Your task to perform on an android device: Open Yahoo.com Image 0: 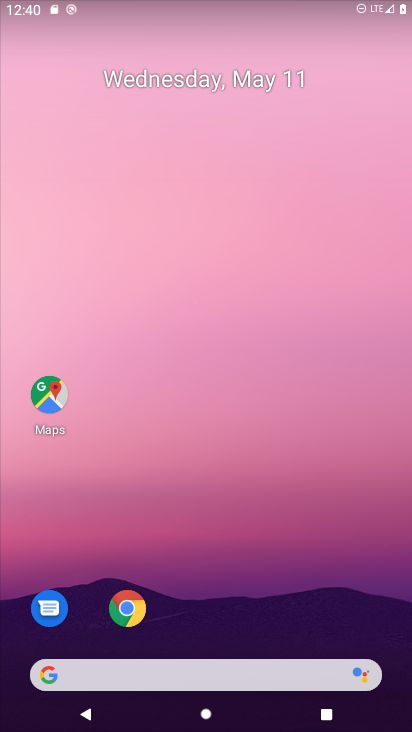
Step 0: click (281, 675)
Your task to perform on an android device: Open Yahoo.com Image 1: 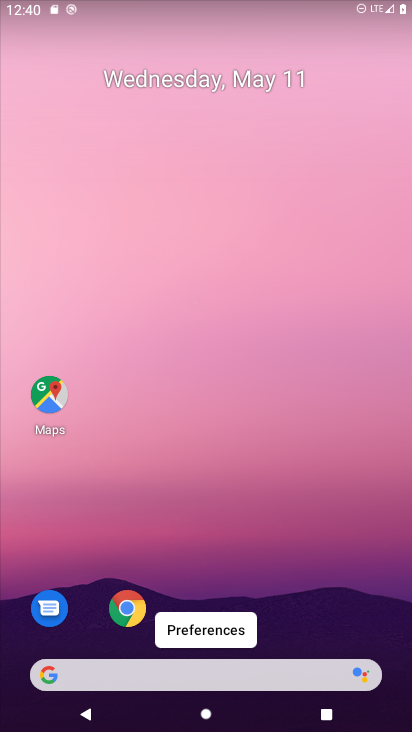
Step 1: click (281, 676)
Your task to perform on an android device: Open Yahoo.com Image 2: 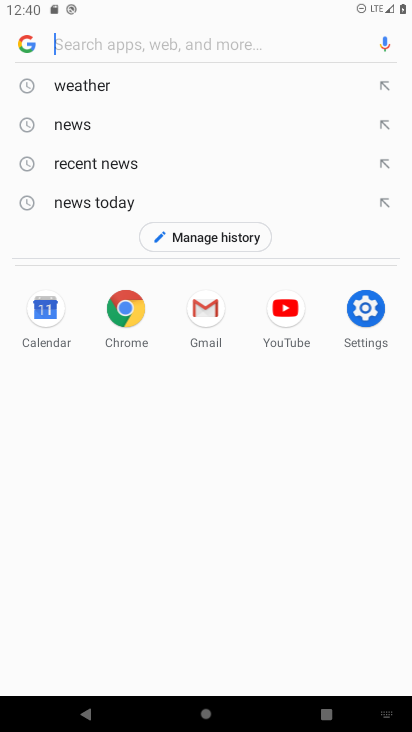
Step 2: type "yahoo.com"
Your task to perform on an android device: Open Yahoo.com Image 3: 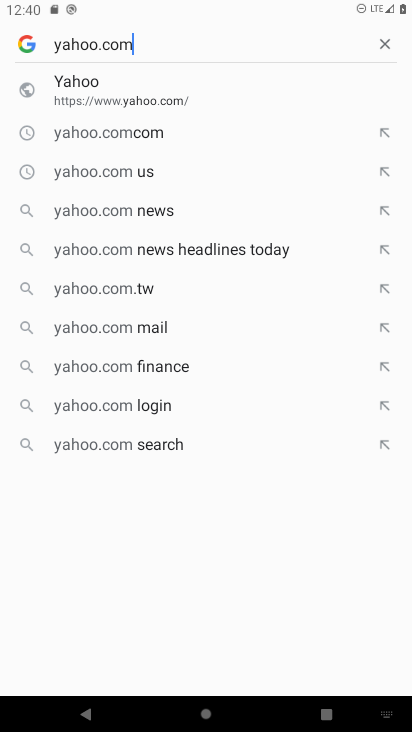
Step 3: click (84, 82)
Your task to perform on an android device: Open Yahoo.com Image 4: 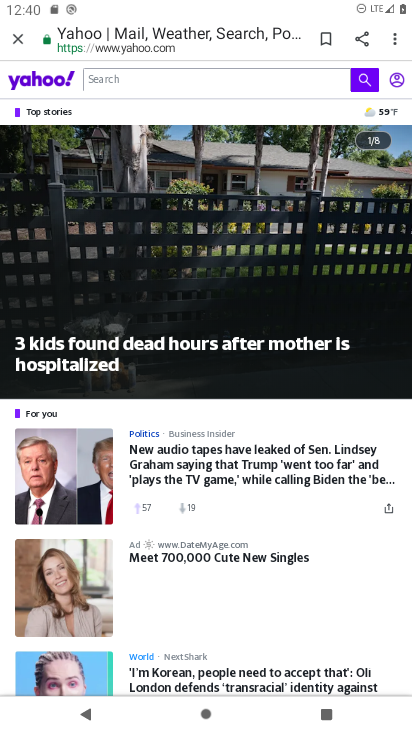
Step 4: task complete